Your task to perform on an android device: toggle javascript in the chrome app Image 0: 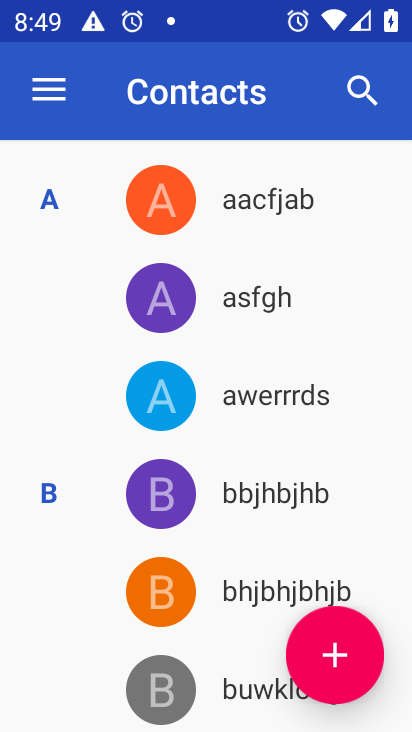
Step 0: press home button
Your task to perform on an android device: toggle javascript in the chrome app Image 1: 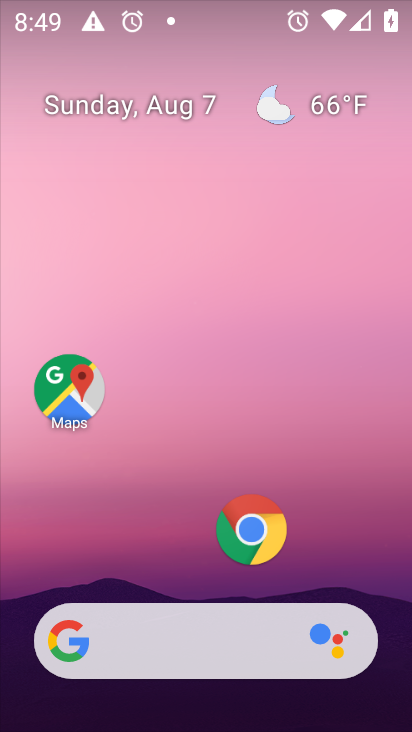
Step 1: click (253, 521)
Your task to perform on an android device: toggle javascript in the chrome app Image 2: 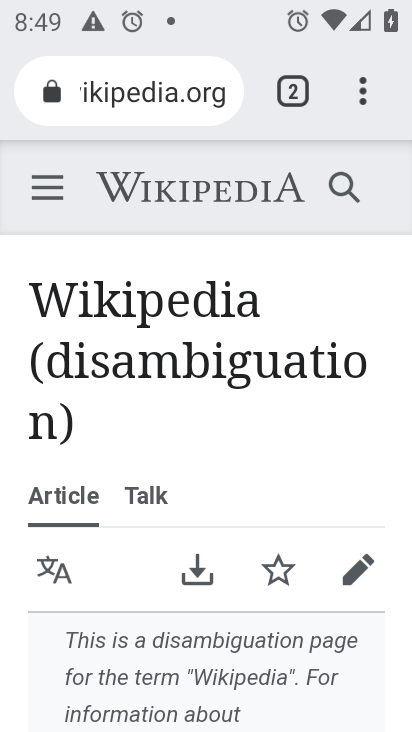
Step 2: click (361, 94)
Your task to perform on an android device: toggle javascript in the chrome app Image 3: 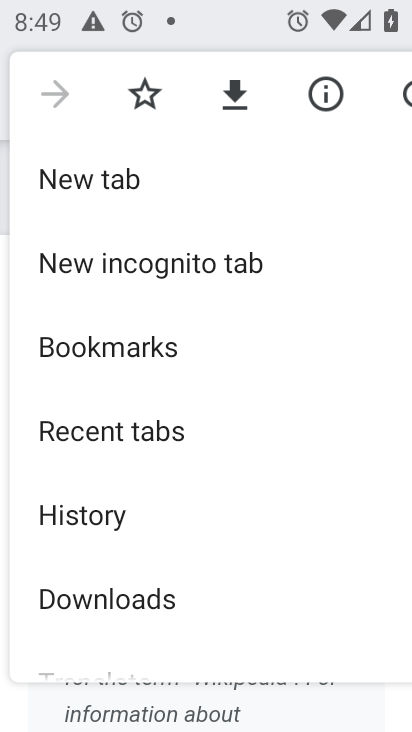
Step 3: drag from (126, 523) to (158, 9)
Your task to perform on an android device: toggle javascript in the chrome app Image 4: 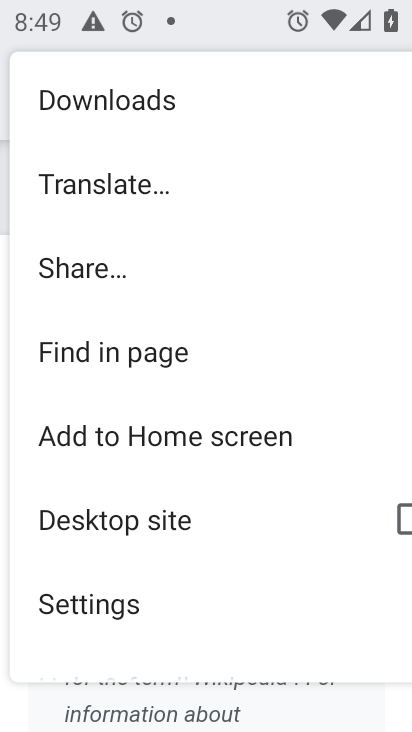
Step 4: click (100, 610)
Your task to perform on an android device: toggle javascript in the chrome app Image 5: 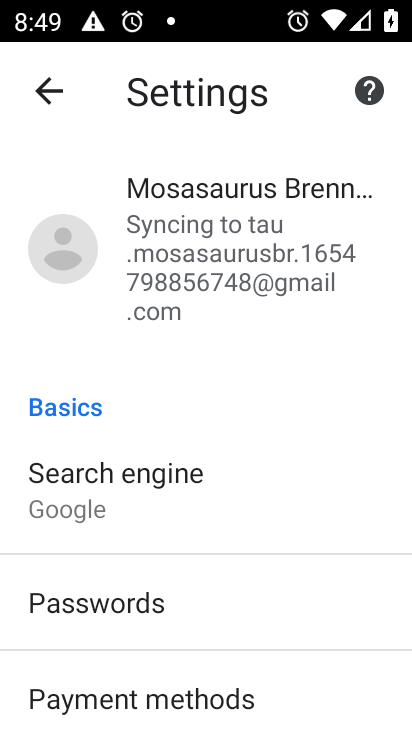
Step 5: drag from (133, 619) to (175, 114)
Your task to perform on an android device: toggle javascript in the chrome app Image 6: 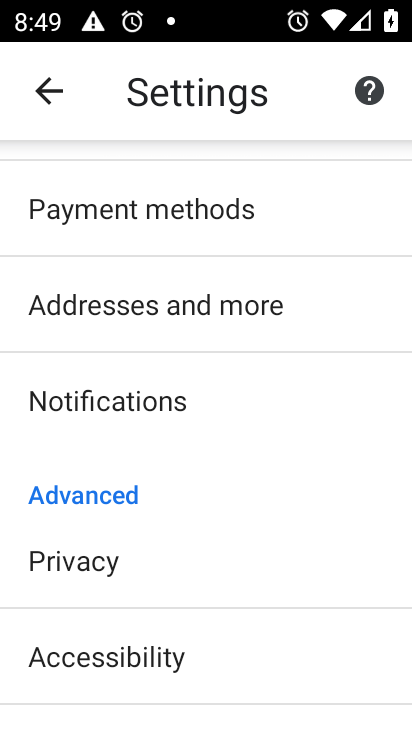
Step 6: drag from (174, 587) to (188, 281)
Your task to perform on an android device: toggle javascript in the chrome app Image 7: 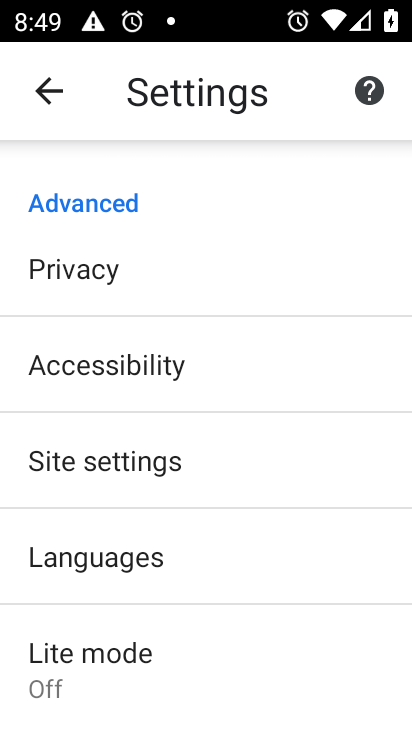
Step 7: click (132, 461)
Your task to perform on an android device: toggle javascript in the chrome app Image 8: 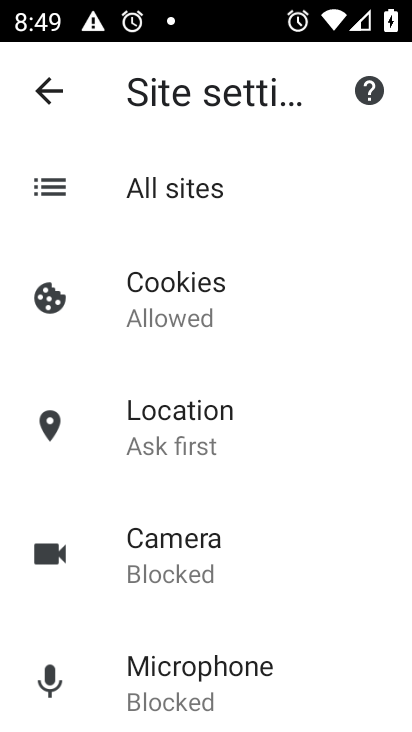
Step 8: drag from (172, 522) to (226, 241)
Your task to perform on an android device: toggle javascript in the chrome app Image 9: 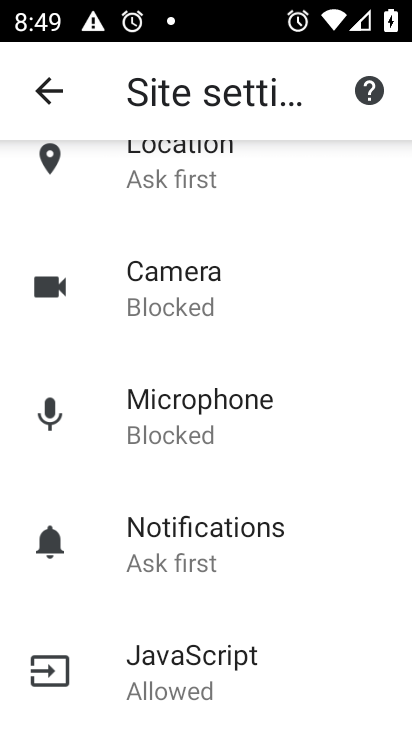
Step 9: click (180, 651)
Your task to perform on an android device: toggle javascript in the chrome app Image 10: 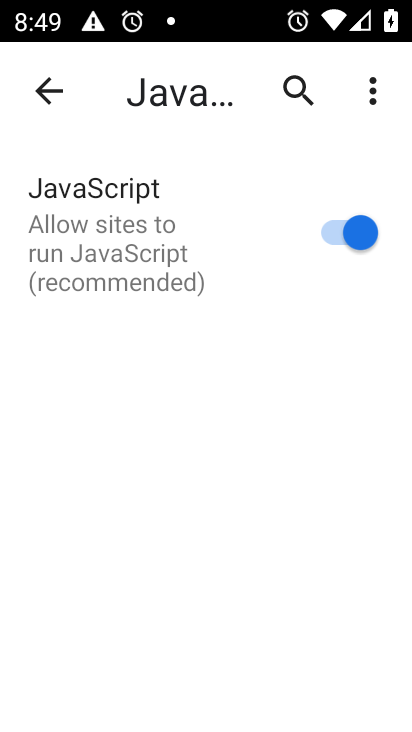
Step 10: click (308, 224)
Your task to perform on an android device: toggle javascript in the chrome app Image 11: 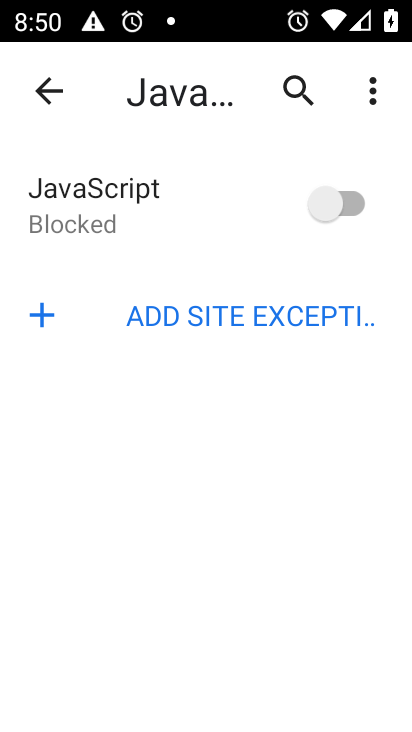
Step 11: task complete